Your task to perform on an android device: toggle improve location accuracy Image 0: 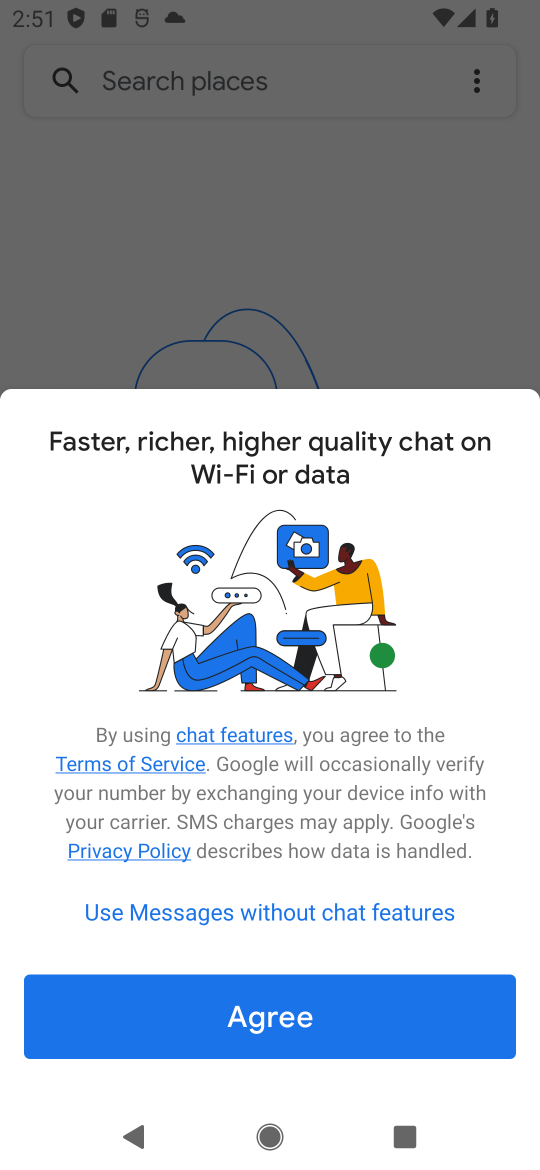
Step 0: press home button
Your task to perform on an android device: toggle improve location accuracy Image 1: 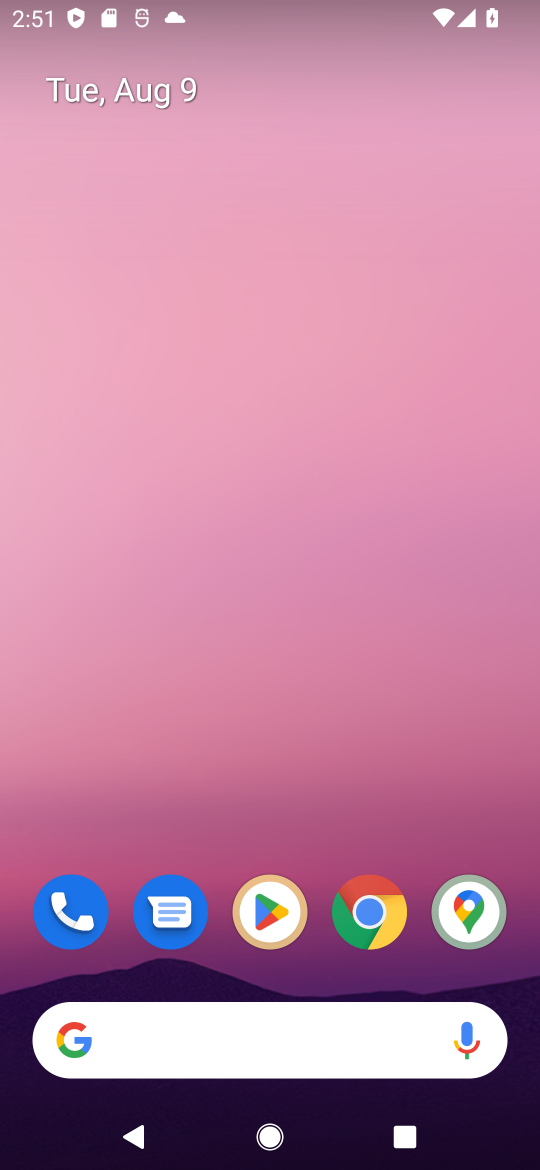
Step 1: drag from (234, 848) to (167, 142)
Your task to perform on an android device: toggle improve location accuracy Image 2: 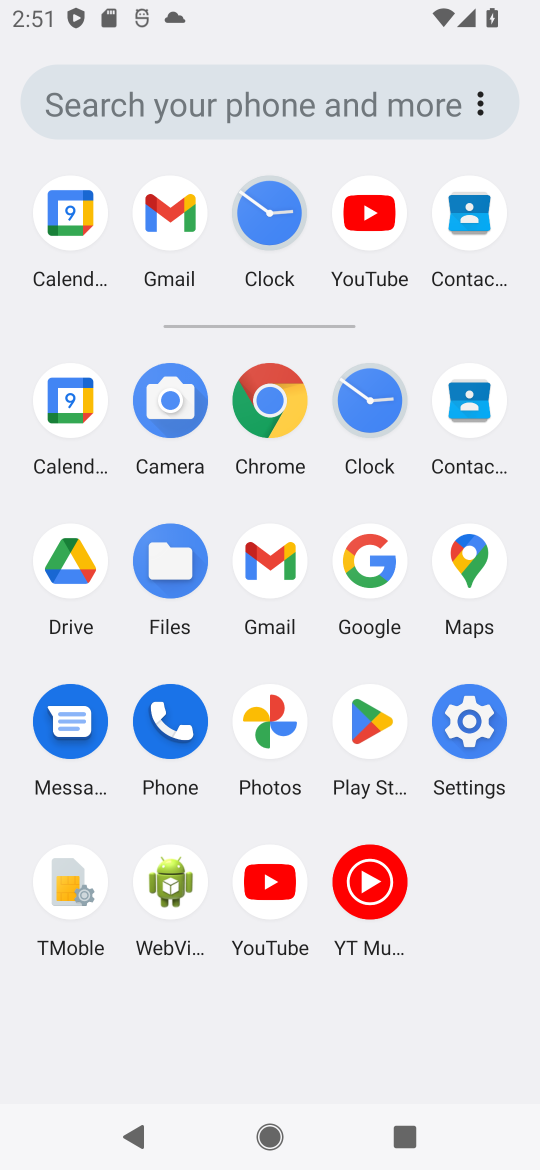
Step 2: click (472, 721)
Your task to perform on an android device: toggle improve location accuracy Image 3: 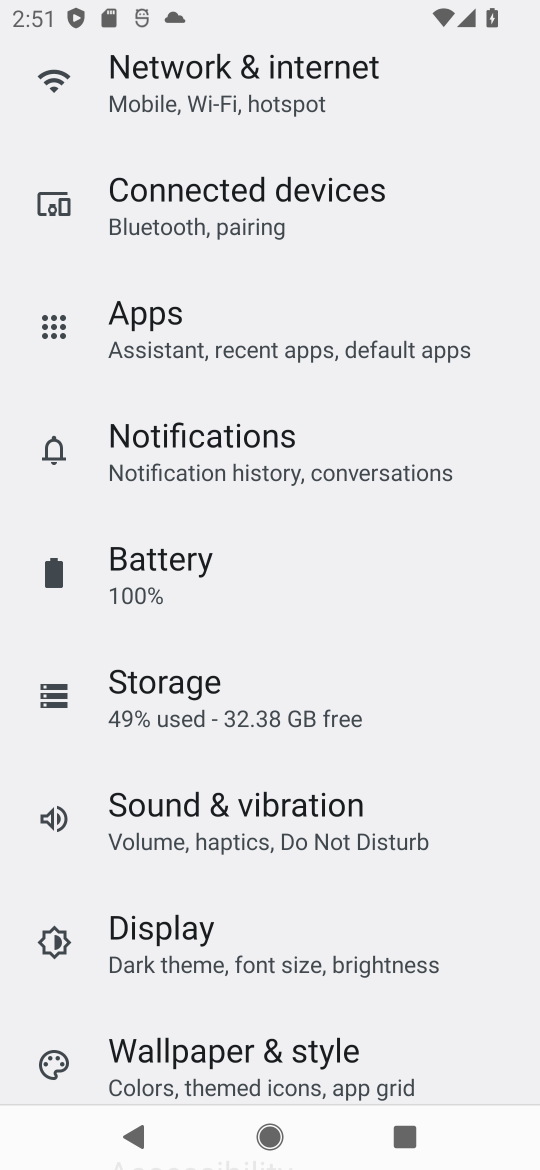
Step 3: drag from (348, 676) to (304, 168)
Your task to perform on an android device: toggle improve location accuracy Image 4: 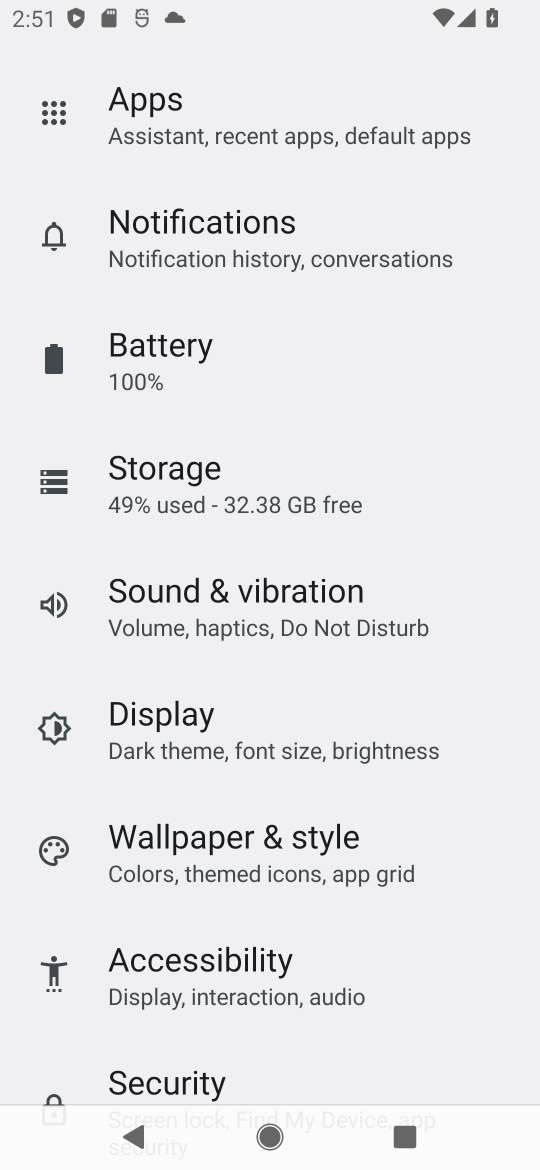
Step 4: drag from (327, 1037) to (305, 347)
Your task to perform on an android device: toggle improve location accuracy Image 5: 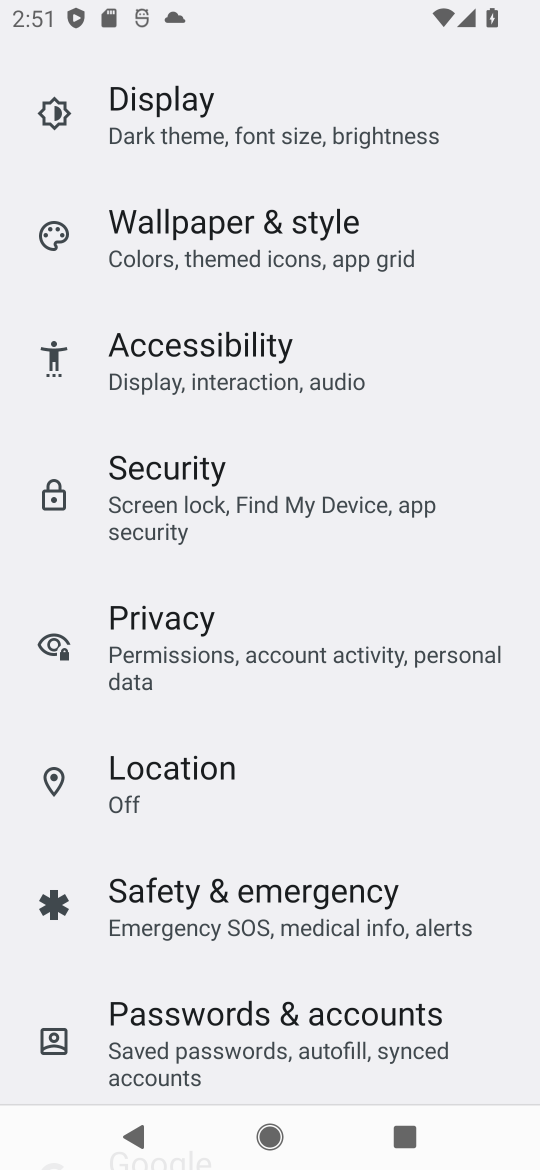
Step 5: click (169, 762)
Your task to perform on an android device: toggle improve location accuracy Image 6: 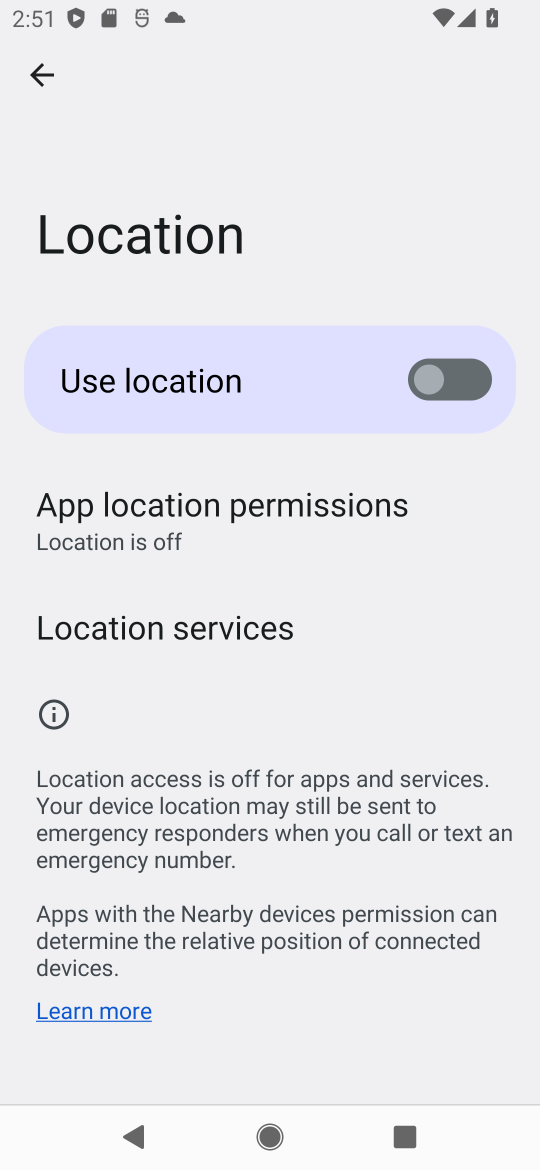
Step 6: click (122, 628)
Your task to perform on an android device: toggle improve location accuracy Image 7: 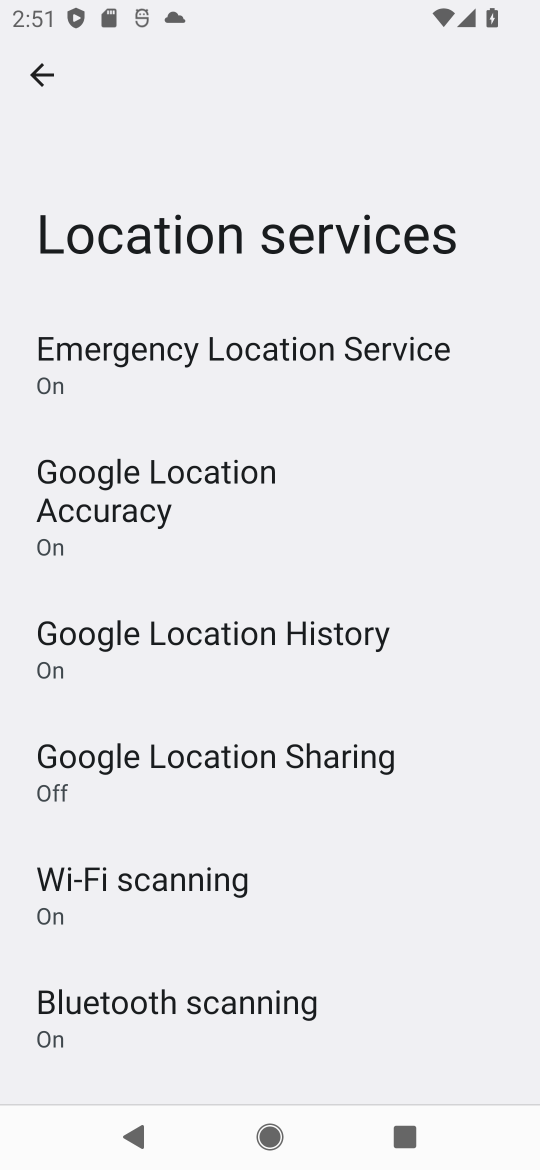
Step 7: click (130, 479)
Your task to perform on an android device: toggle improve location accuracy Image 8: 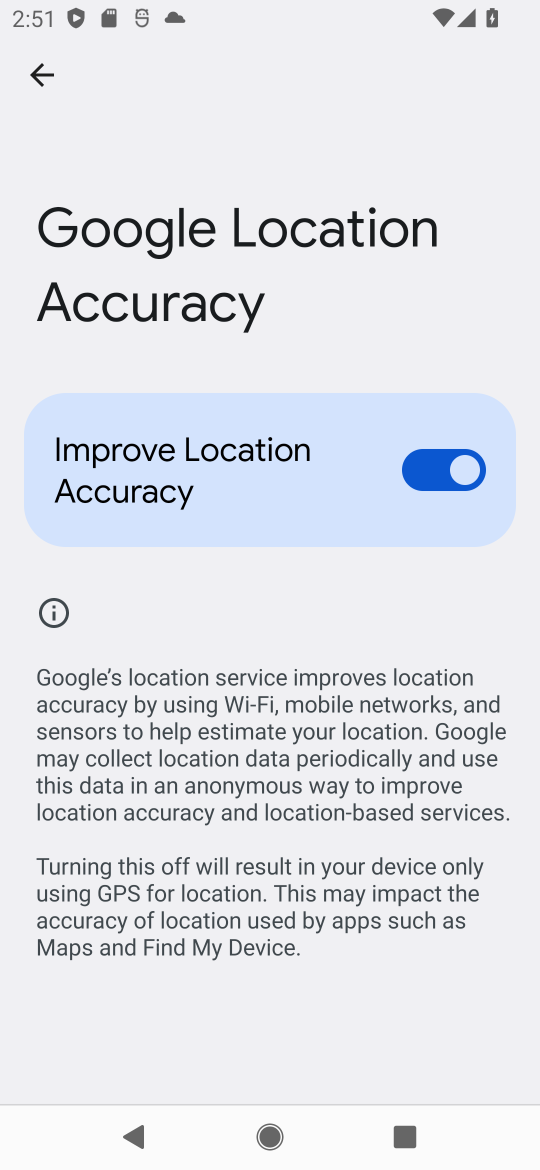
Step 8: click (453, 475)
Your task to perform on an android device: toggle improve location accuracy Image 9: 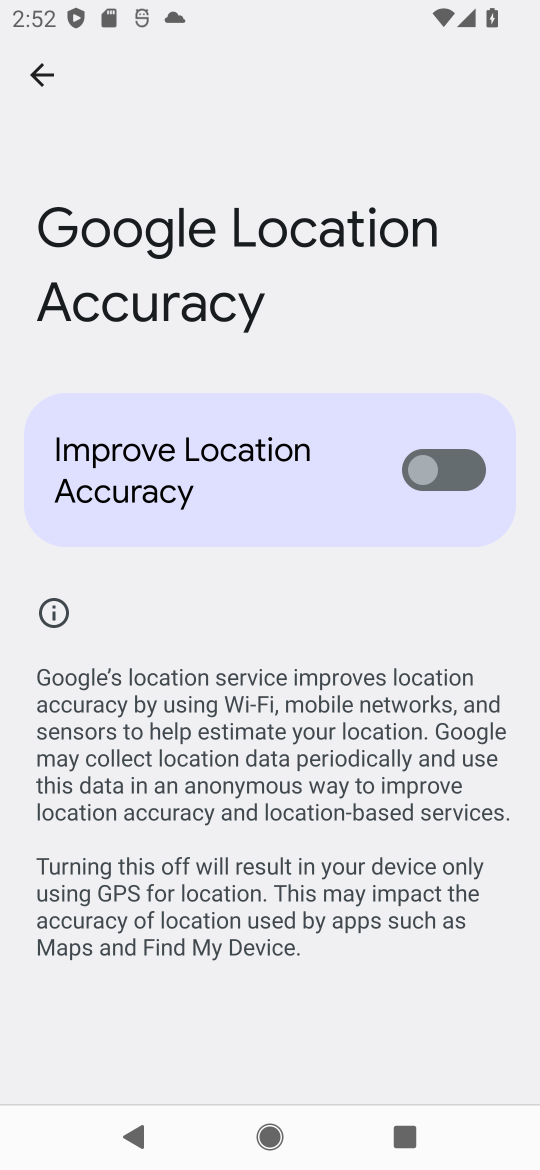
Step 9: task complete